Your task to perform on an android device: see sites visited before in the chrome app Image 0: 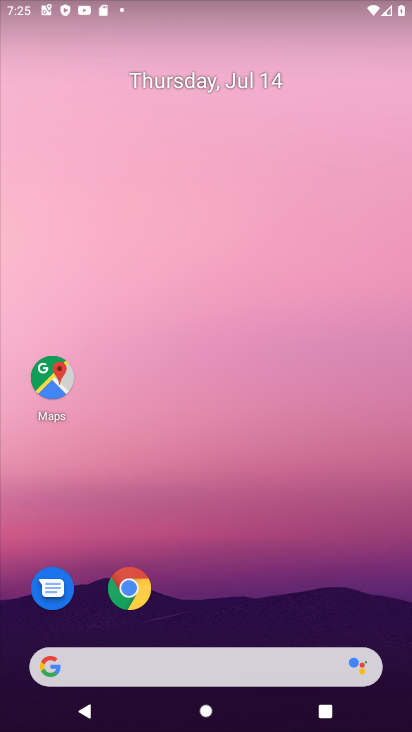
Step 0: drag from (360, 615) to (244, 0)
Your task to perform on an android device: see sites visited before in the chrome app Image 1: 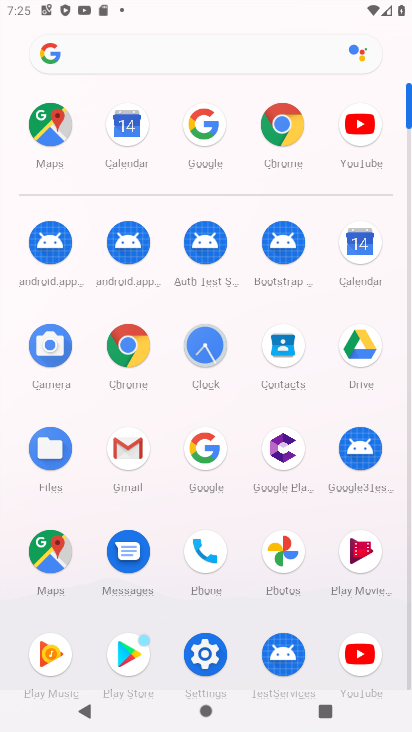
Step 1: click (282, 118)
Your task to perform on an android device: see sites visited before in the chrome app Image 2: 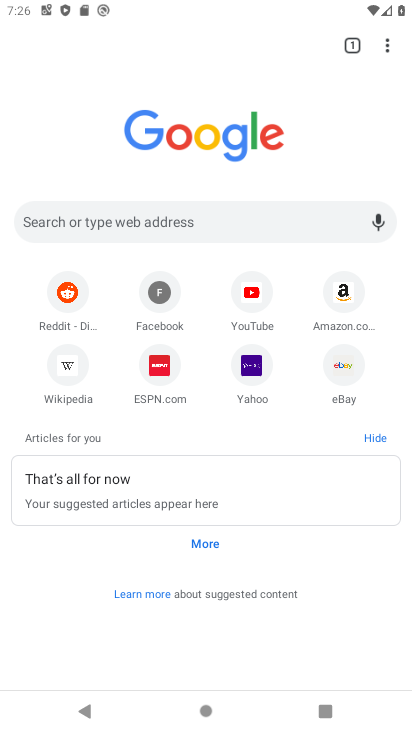
Step 2: task complete